Your task to perform on an android device: Go to calendar. Show me events next week Image 0: 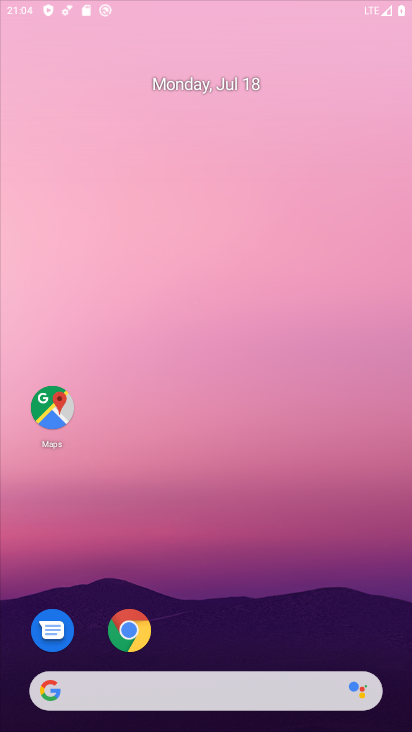
Step 0: drag from (284, 640) to (63, 54)
Your task to perform on an android device: Go to calendar. Show me events next week Image 1: 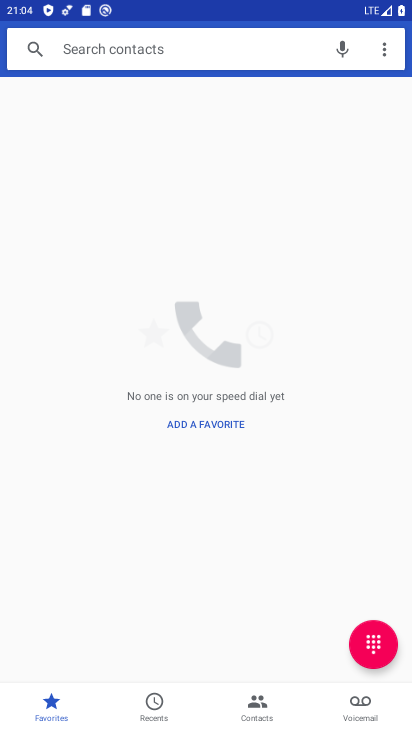
Step 1: press home button
Your task to perform on an android device: Go to calendar. Show me events next week Image 2: 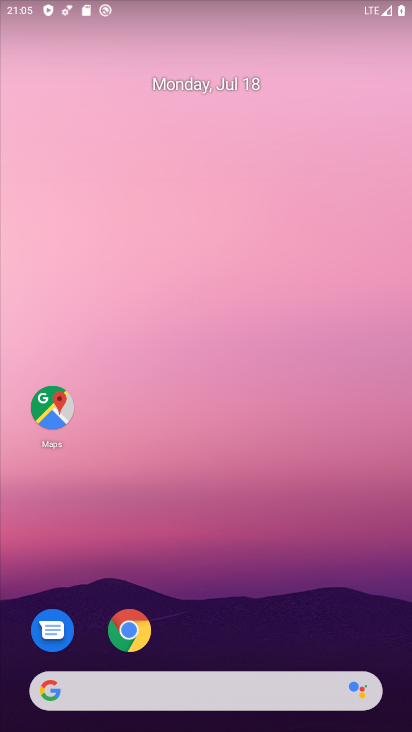
Step 2: click (79, 421)
Your task to perform on an android device: Go to calendar. Show me events next week Image 3: 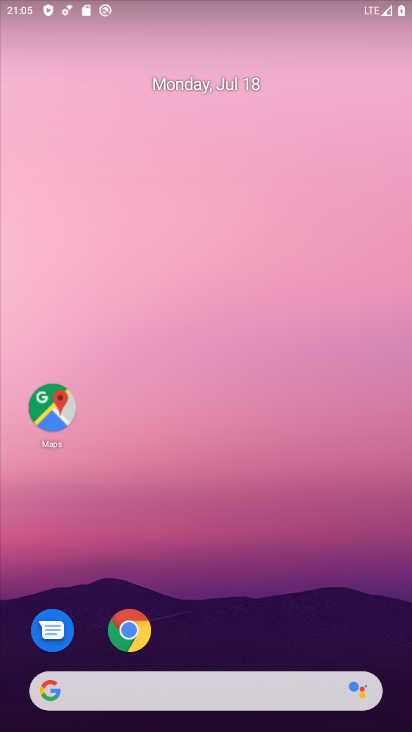
Step 3: drag from (218, 619) to (243, 199)
Your task to perform on an android device: Go to calendar. Show me events next week Image 4: 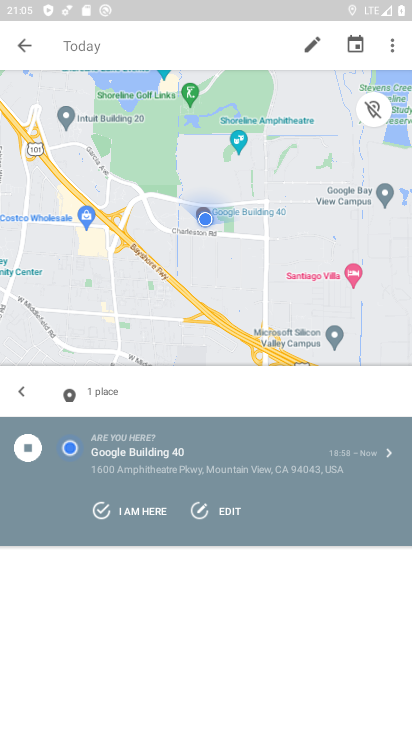
Step 4: press home button
Your task to perform on an android device: Go to calendar. Show me events next week Image 5: 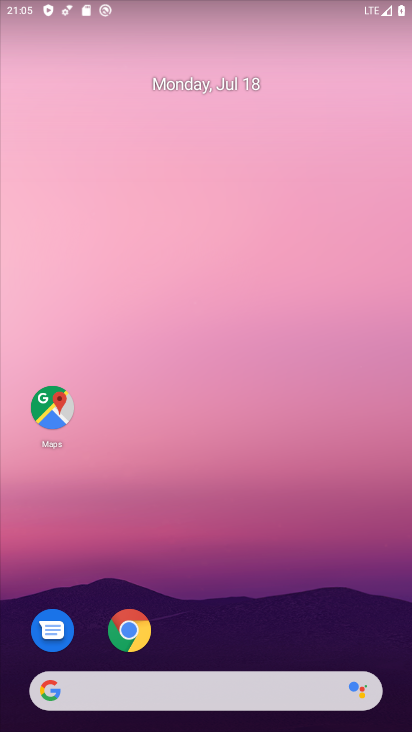
Step 5: drag from (258, 613) to (237, 194)
Your task to perform on an android device: Go to calendar. Show me events next week Image 6: 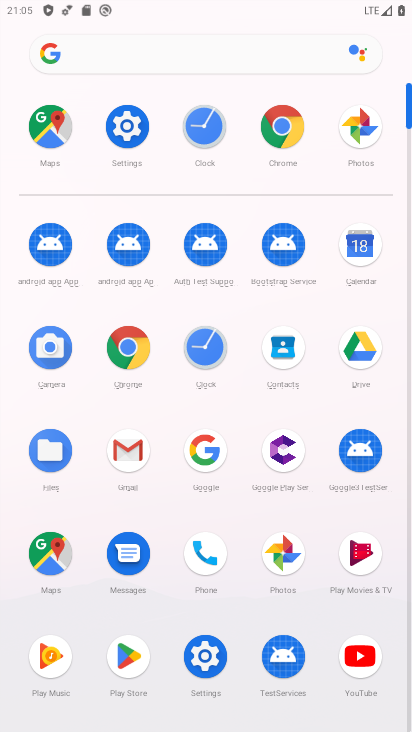
Step 6: click (369, 244)
Your task to perform on an android device: Go to calendar. Show me events next week Image 7: 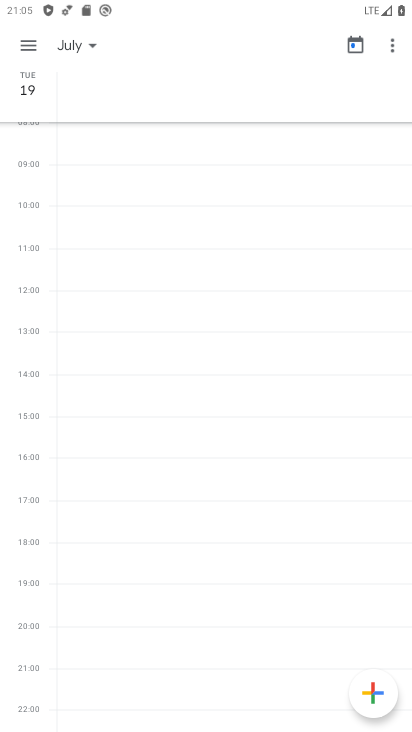
Step 7: click (22, 47)
Your task to perform on an android device: Go to calendar. Show me events next week Image 8: 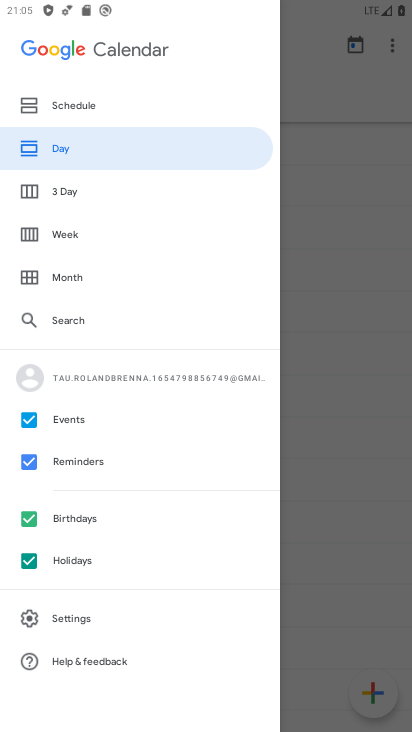
Step 8: click (77, 287)
Your task to perform on an android device: Go to calendar. Show me events next week Image 9: 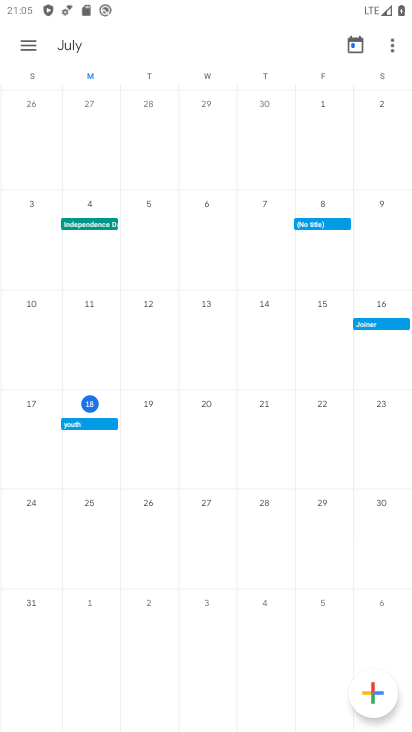
Step 9: click (77, 287)
Your task to perform on an android device: Go to calendar. Show me events next week Image 10: 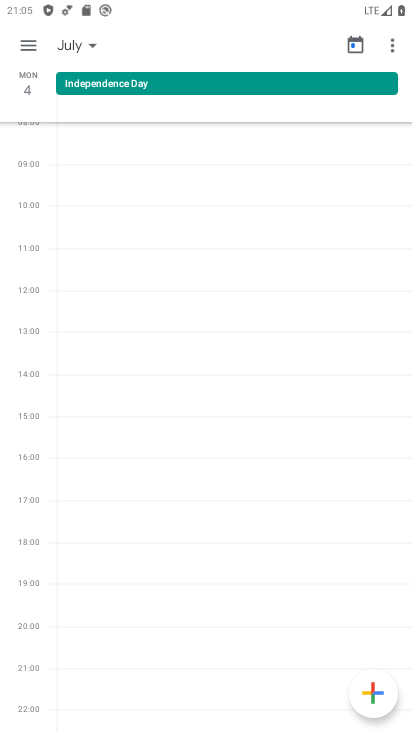
Step 10: click (79, 287)
Your task to perform on an android device: Go to calendar. Show me events next week Image 11: 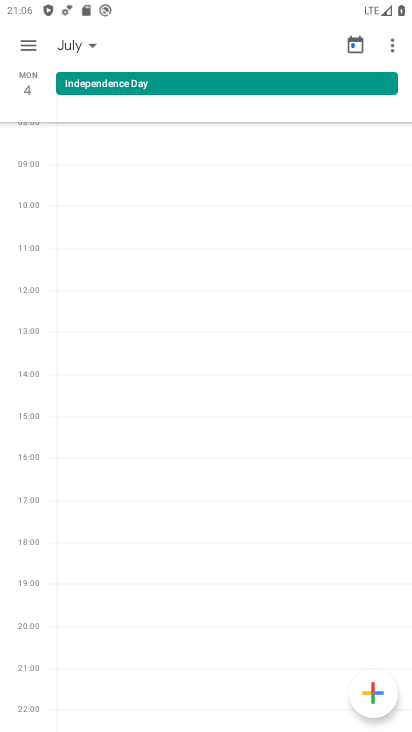
Step 11: task complete